Your task to perform on an android device: Open calendar and show me the second week of next month Image 0: 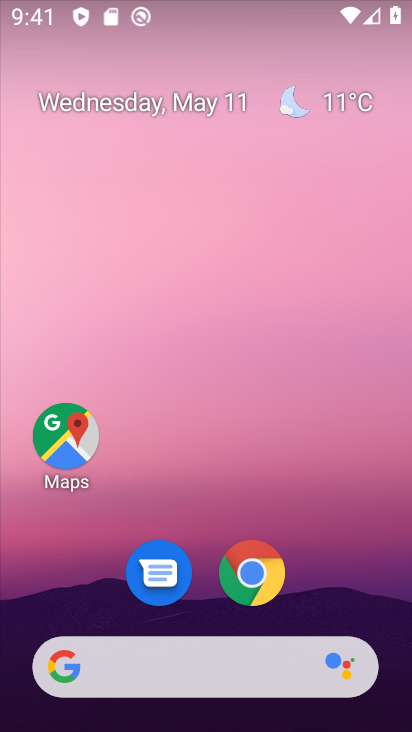
Step 0: drag from (325, 583) to (115, 62)
Your task to perform on an android device: Open calendar and show me the second week of next month Image 1: 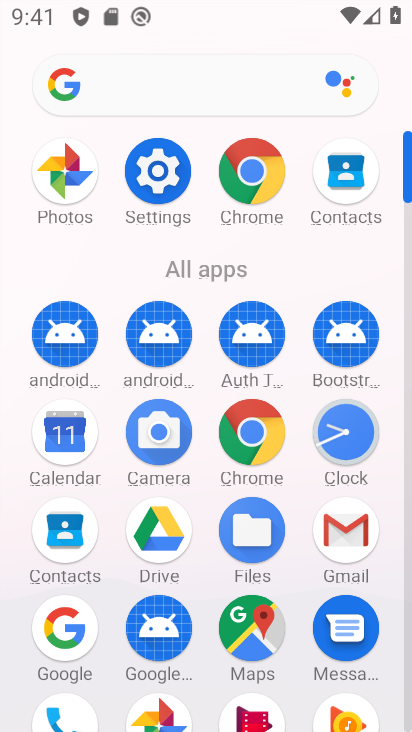
Step 1: click (69, 436)
Your task to perform on an android device: Open calendar and show me the second week of next month Image 2: 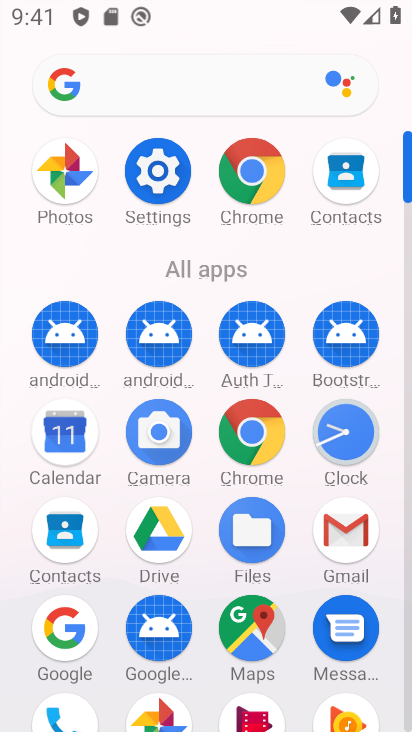
Step 2: click (68, 436)
Your task to perform on an android device: Open calendar and show me the second week of next month Image 3: 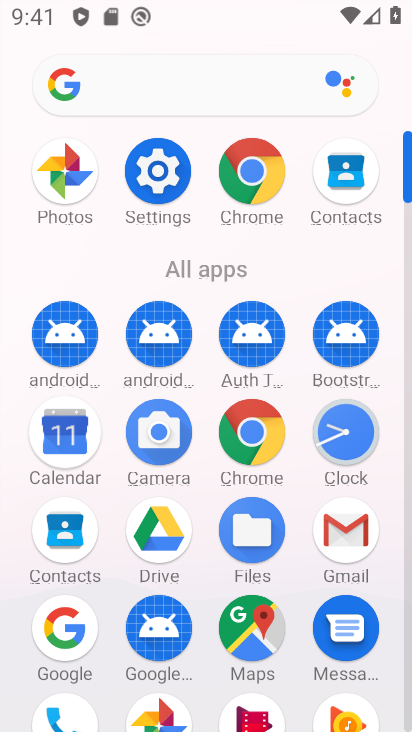
Step 3: click (68, 435)
Your task to perform on an android device: Open calendar and show me the second week of next month Image 4: 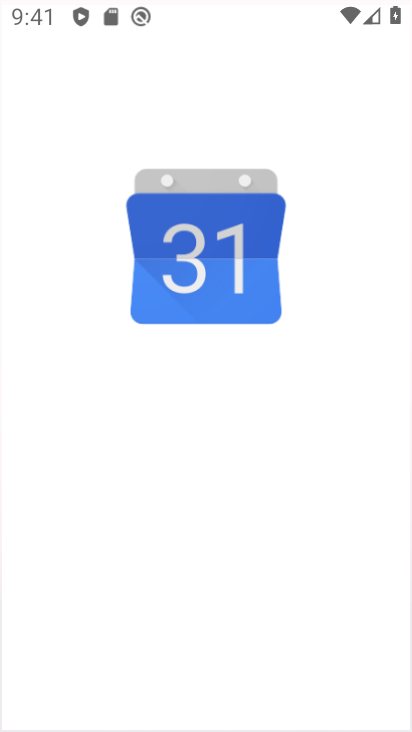
Step 4: click (68, 435)
Your task to perform on an android device: Open calendar and show me the second week of next month Image 5: 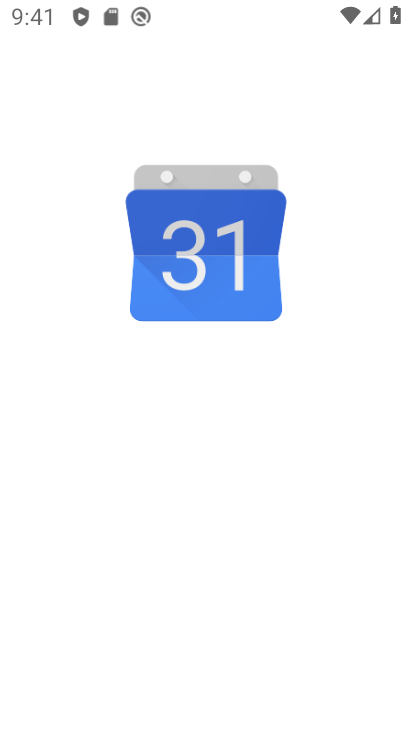
Step 5: click (81, 432)
Your task to perform on an android device: Open calendar and show me the second week of next month Image 6: 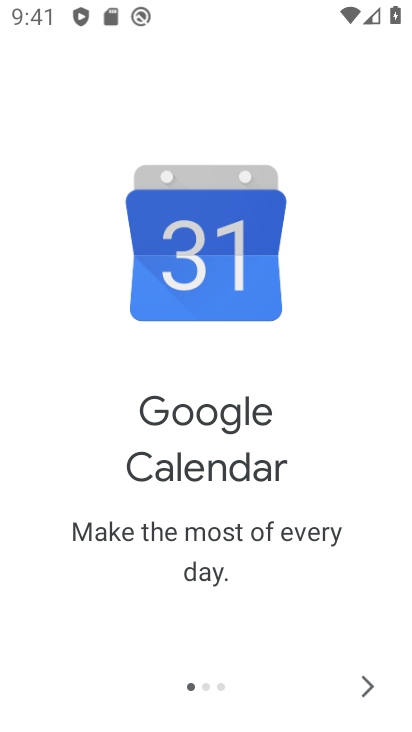
Step 6: click (368, 682)
Your task to perform on an android device: Open calendar and show me the second week of next month Image 7: 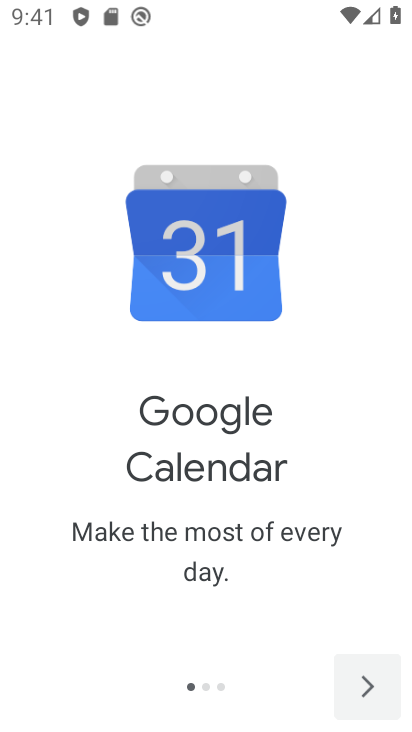
Step 7: click (367, 683)
Your task to perform on an android device: Open calendar and show me the second week of next month Image 8: 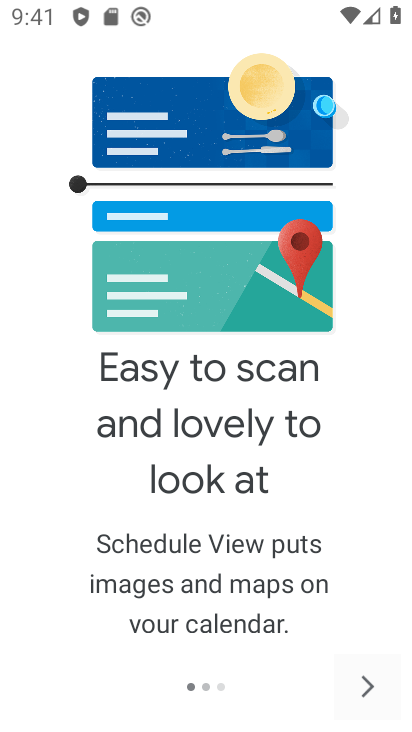
Step 8: click (367, 683)
Your task to perform on an android device: Open calendar and show me the second week of next month Image 9: 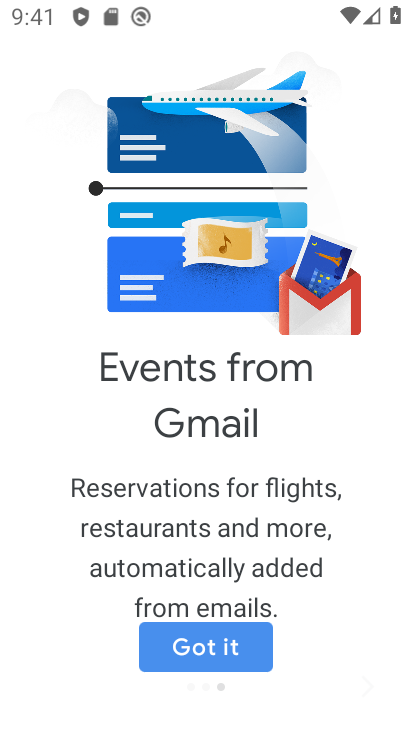
Step 9: click (366, 684)
Your task to perform on an android device: Open calendar and show me the second week of next month Image 10: 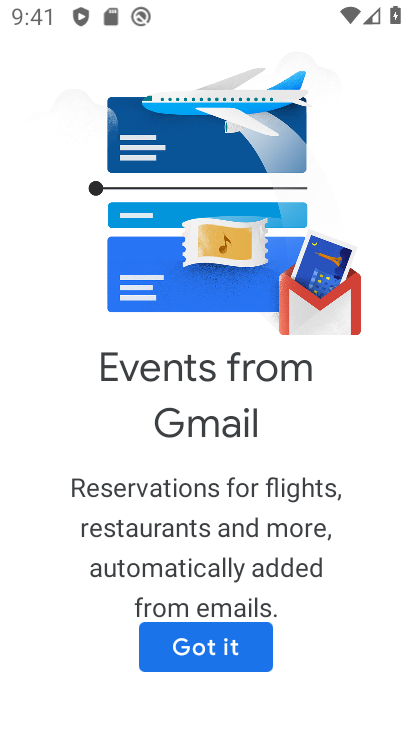
Step 10: click (365, 684)
Your task to perform on an android device: Open calendar and show me the second week of next month Image 11: 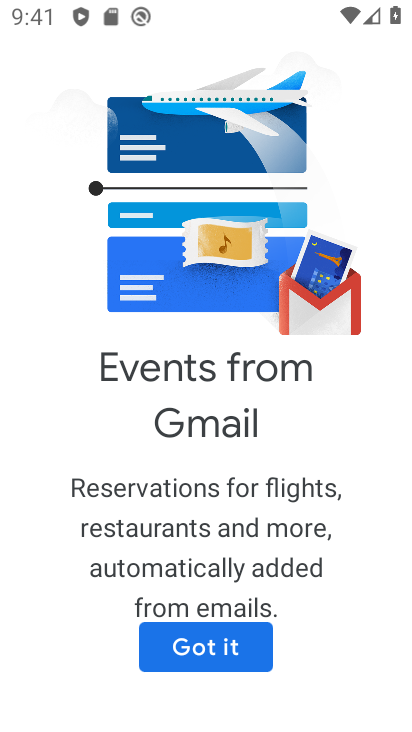
Step 11: click (209, 640)
Your task to perform on an android device: Open calendar and show me the second week of next month Image 12: 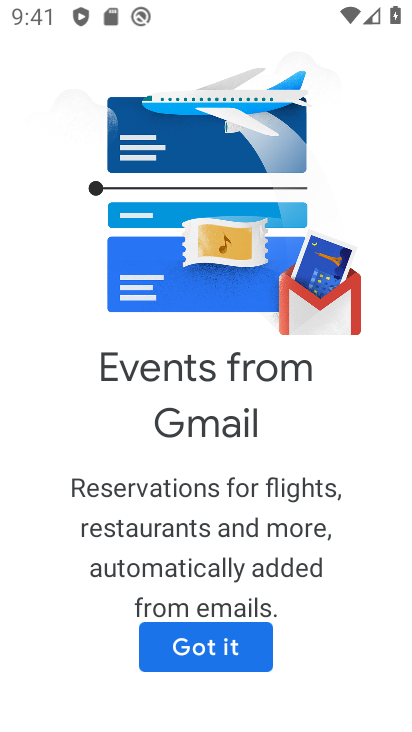
Step 12: click (215, 653)
Your task to perform on an android device: Open calendar and show me the second week of next month Image 13: 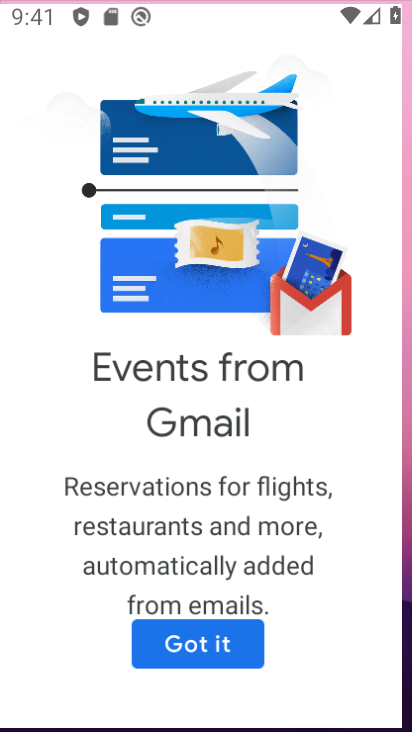
Step 13: click (218, 648)
Your task to perform on an android device: Open calendar and show me the second week of next month Image 14: 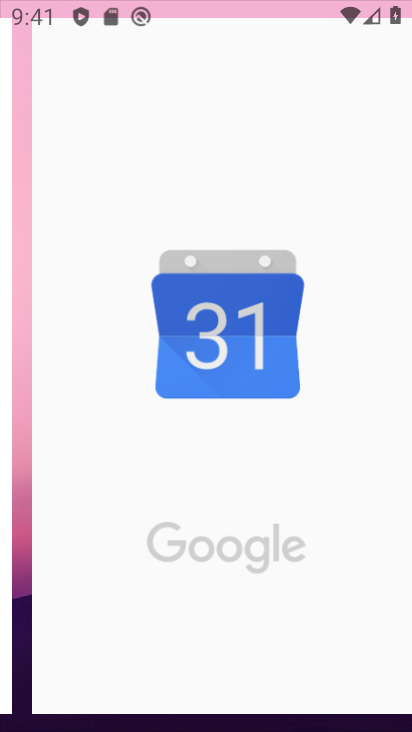
Step 14: click (218, 648)
Your task to perform on an android device: Open calendar and show me the second week of next month Image 15: 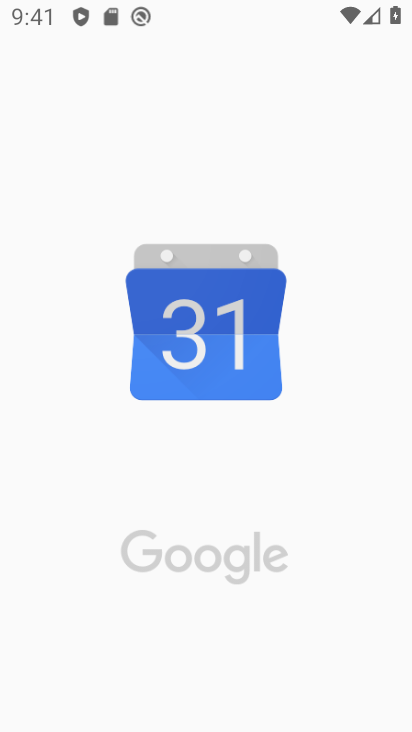
Step 15: click (219, 647)
Your task to perform on an android device: Open calendar and show me the second week of next month Image 16: 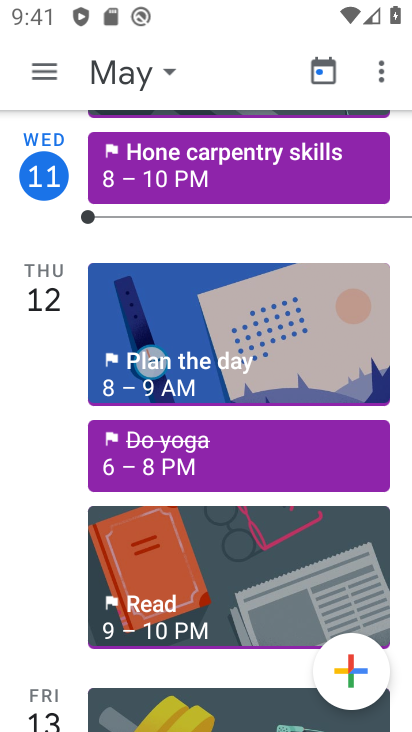
Step 16: click (169, 63)
Your task to perform on an android device: Open calendar and show me the second week of next month Image 17: 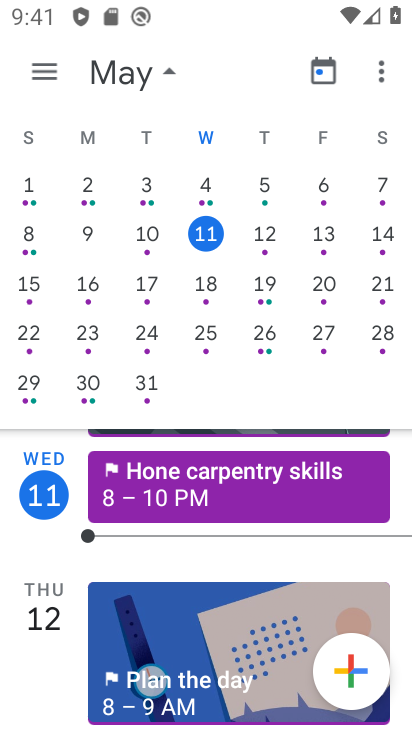
Step 17: drag from (246, 236) to (7, 212)
Your task to perform on an android device: Open calendar and show me the second week of next month Image 18: 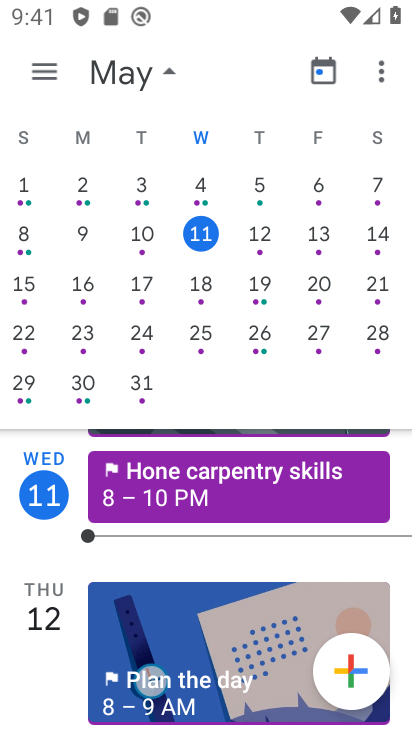
Step 18: drag from (258, 250) to (4, 247)
Your task to perform on an android device: Open calendar and show me the second week of next month Image 19: 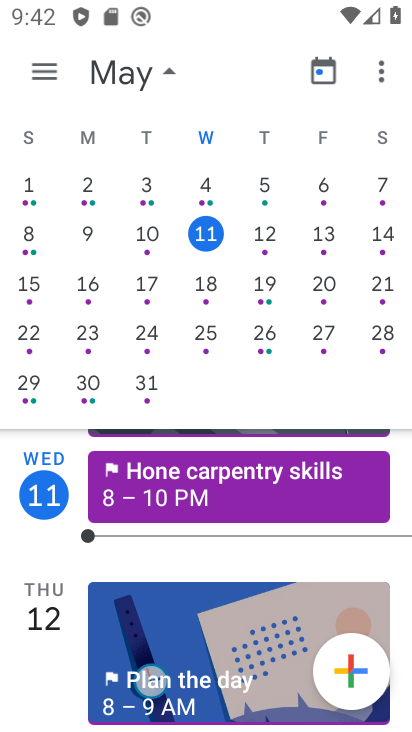
Step 19: drag from (251, 240) to (12, 265)
Your task to perform on an android device: Open calendar and show me the second week of next month Image 20: 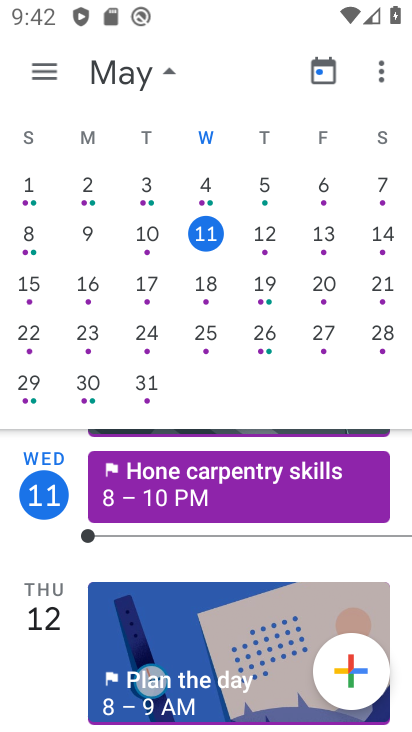
Step 20: drag from (254, 229) to (17, 279)
Your task to perform on an android device: Open calendar and show me the second week of next month Image 21: 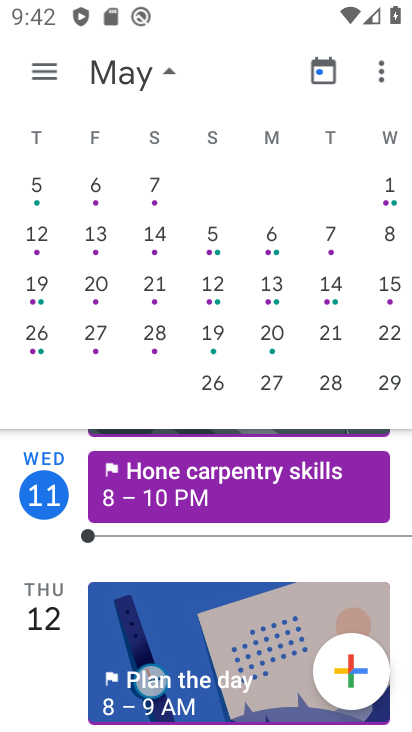
Step 21: drag from (273, 244) to (43, 280)
Your task to perform on an android device: Open calendar and show me the second week of next month Image 22: 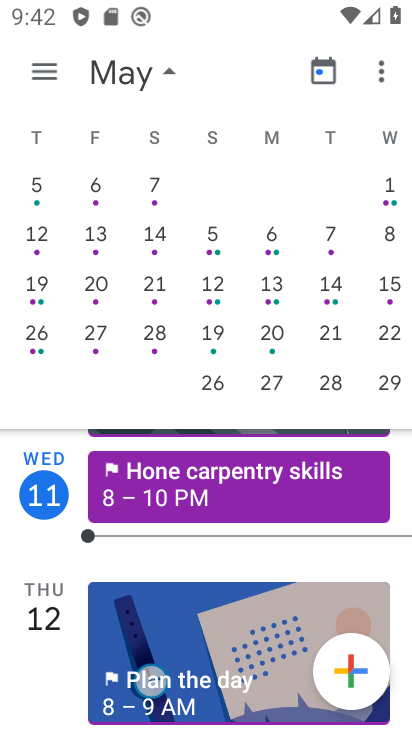
Step 22: click (53, 320)
Your task to perform on an android device: Open calendar and show me the second week of next month Image 23: 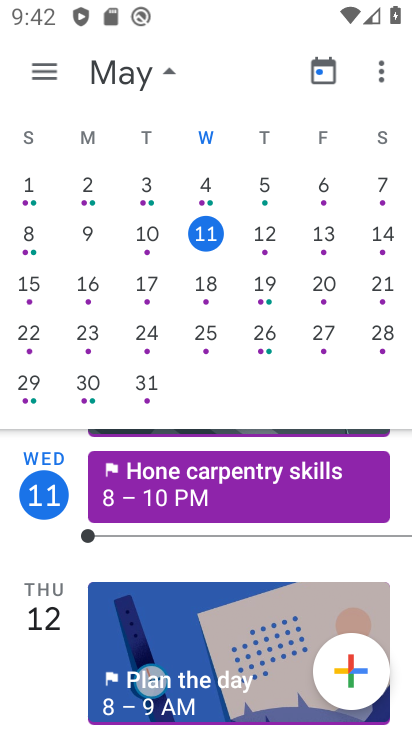
Step 23: drag from (116, 309) to (40, 287)
Your task to perform on an android device: Open calendar and show me the second week of next month Image 24: 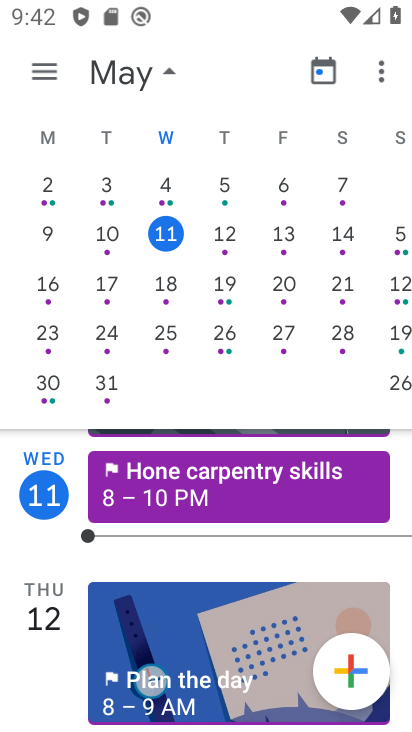
Step 24: drag from (182, 250) to (4, 279)
Your task to perform on an android device: Open calendar and show me the second week of next month Image 25: 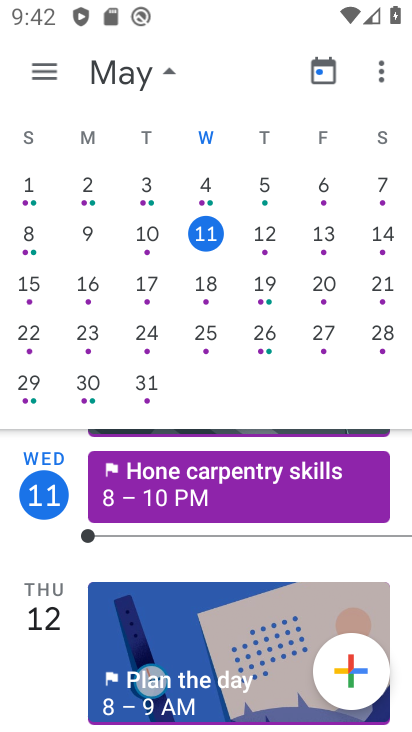
Step 25: drag from (232, 252) to (4, 336)
Your task to perform on an android device: Open calendar and show me the second week of next month Image 26: 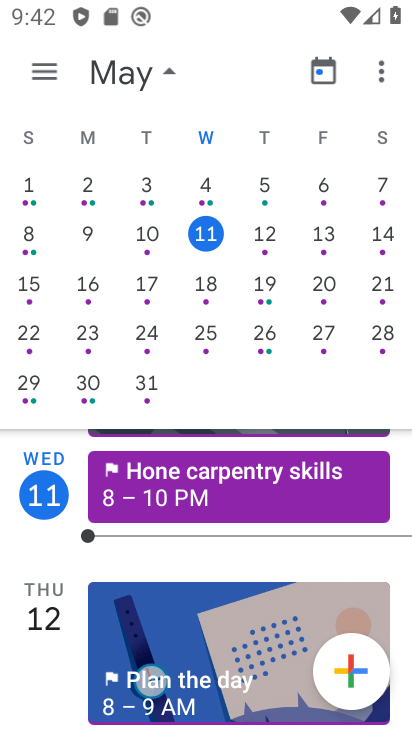
Step 26: drag from (248, 253) to (42, 270)
Your task to perform on an android device: Open calendar and show me the second week of next month Image 27: 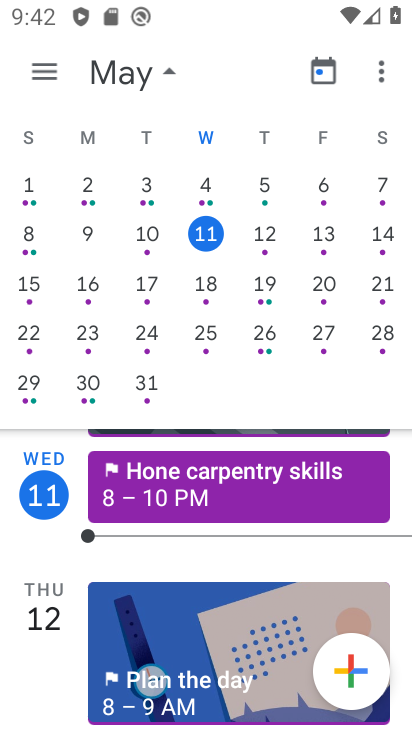
Step 27: drag from (66, 303) to (4, 310)
Your task to perform on an android device: Open calendar and show me the second week of next month Image 28: 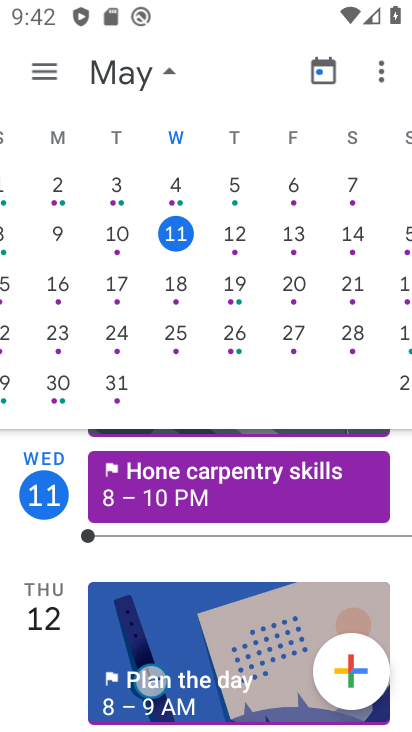
Step 28: drag from (266, 290) to (41, 308)
Your task to perform on an android device: Open calendar and show me the second week of next month Image 29: 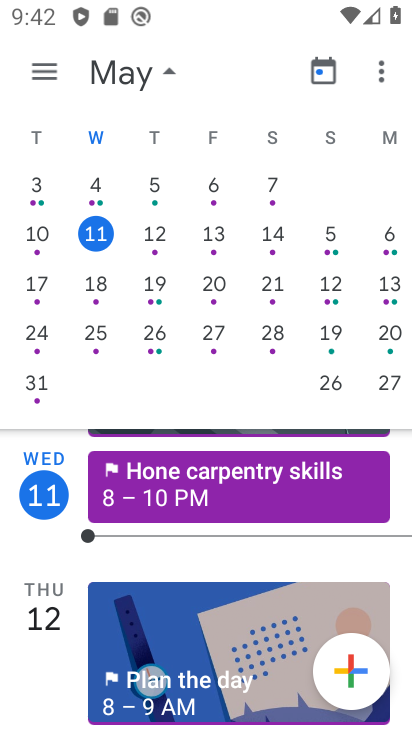
Step 29: drag from (284, 259) to (31, 292)
Your task to perform on an android device: Open calendar and show me the second week of next month Image 30: 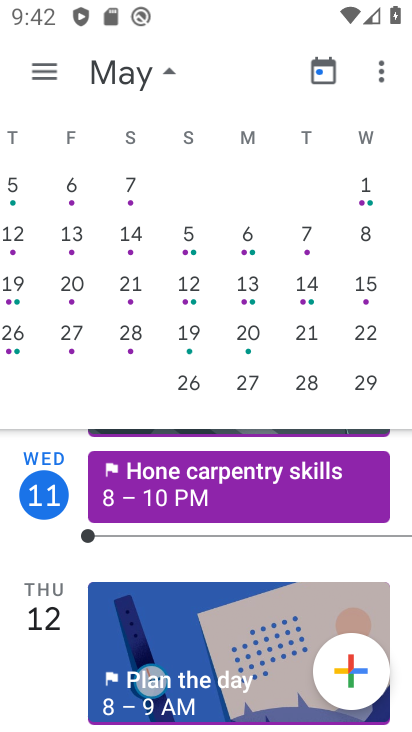
Step 30: drag from (68, 274) to (7, 265)
Your task to perform on an android device: Open calendar and show me the second week of next month Image 31: 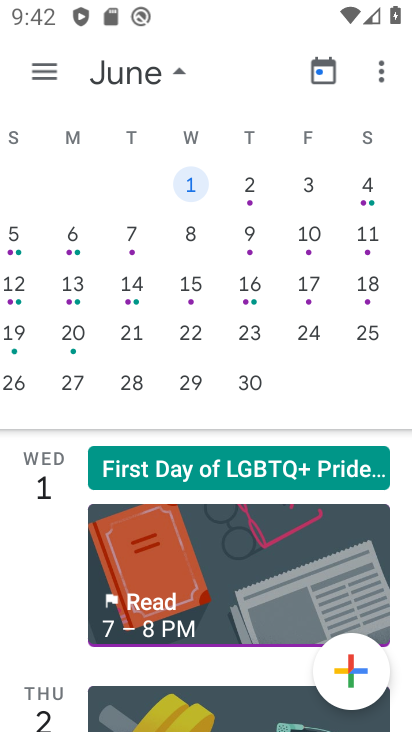
Step 31: drag from (299, 227) to (64, 252)
Your task to perform on an android device: Open calendar and show me the second week of next month Image 32: 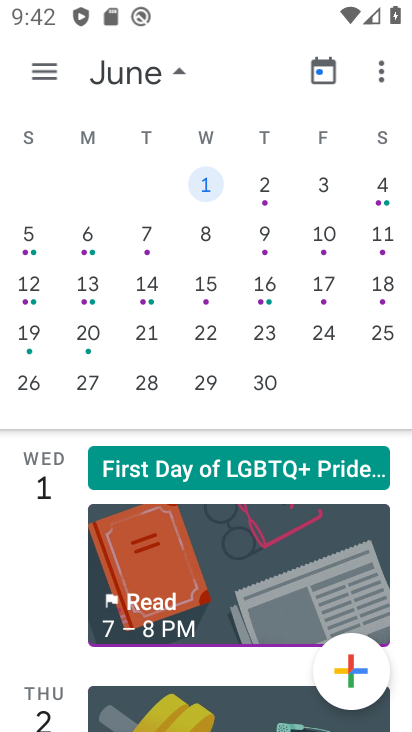
Step 32: click (203, 225)
Your task to perform on an android device: Open calendar and show me the second week of next month Image 33: 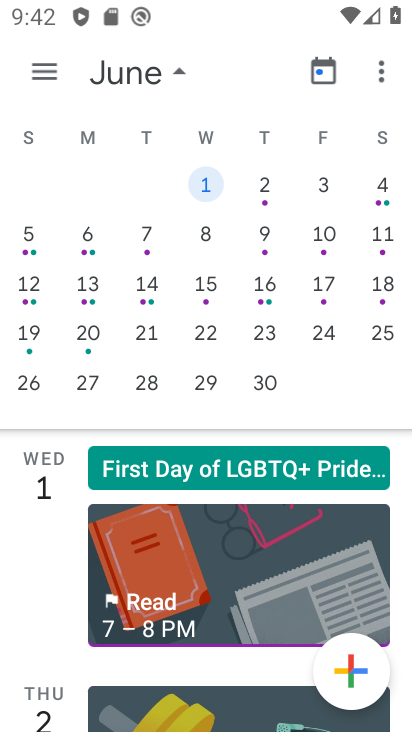
Step 33: click (202, 225)
Your task to perform on an android device: Open calendar and show me the second week of next month Image 34: 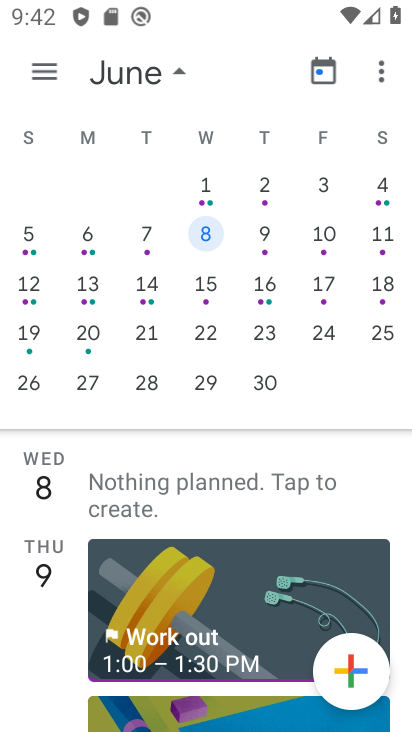
Step 34: click (200, 225)
Your task to perform on an android device: Open calendar and show me the second week of next month Image 35: 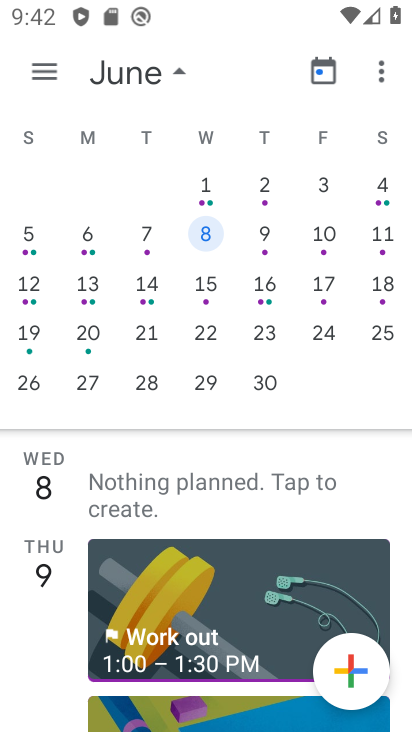
Step 35: click (198, 223)
Your task to perform on an android device: Open calendar and show me the second week of next month Image 36: 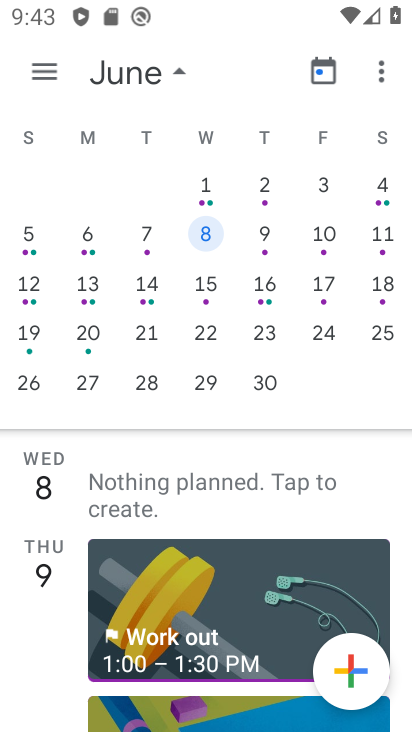
Step 36: click (186, 221)
Your task to perform on an android device: Open calendar and show me the second week of next month Image 37: 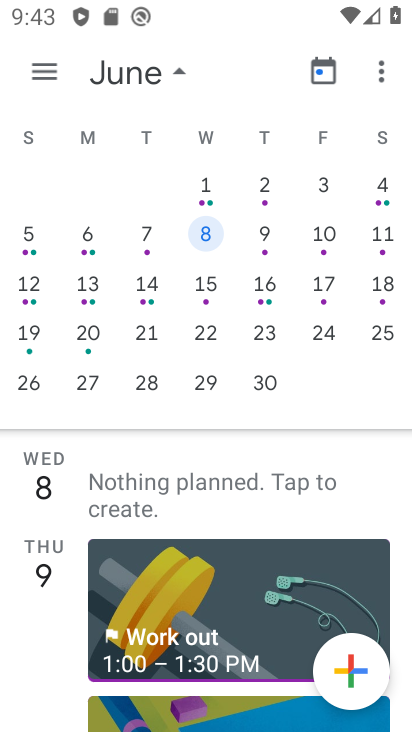
Step 37: task complete